Your task to perform on an android device: Go to eBay Image 0: 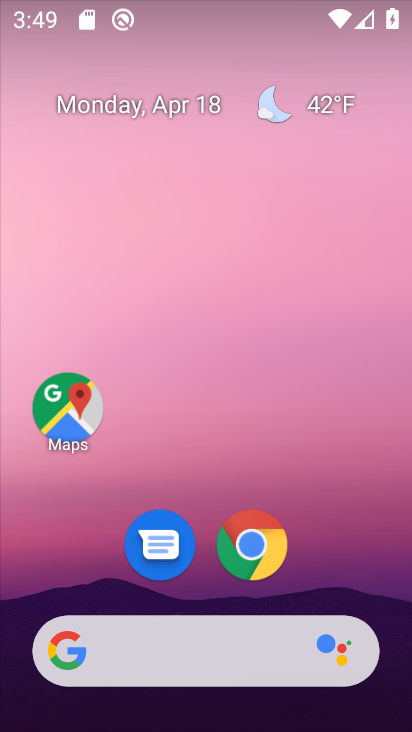
Step 0: drag from (314, 567) to (282, 74)
Your task to perform on an android device: Go to eBay Image 1: 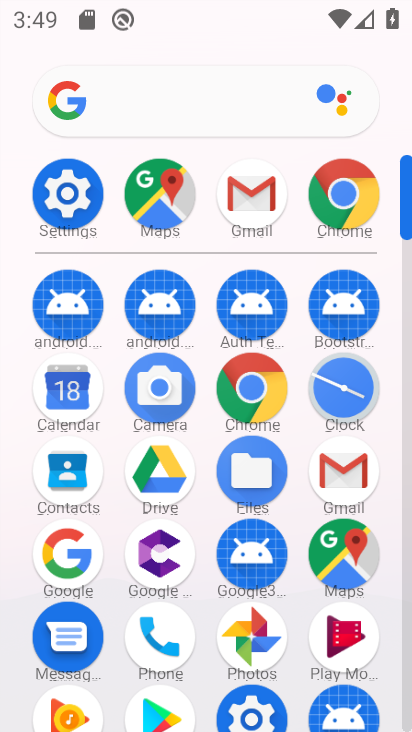
Step 1: click (243, 404)
Your task to perform on an android device: Go to eBay Image 2: 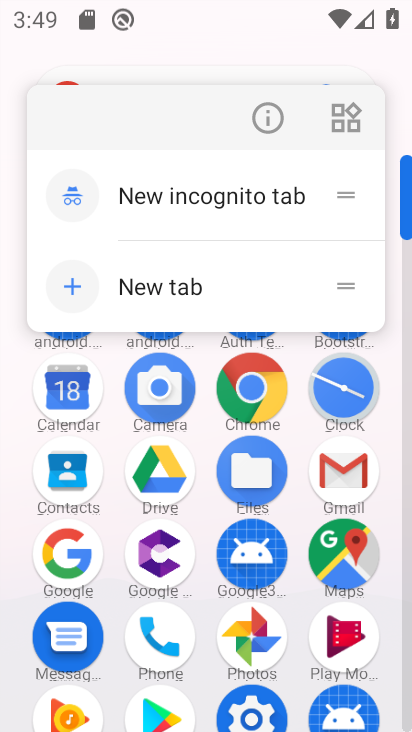
Step 2: click (243, 404)
Your task to perform on an android device: Go to eBay Image 3: 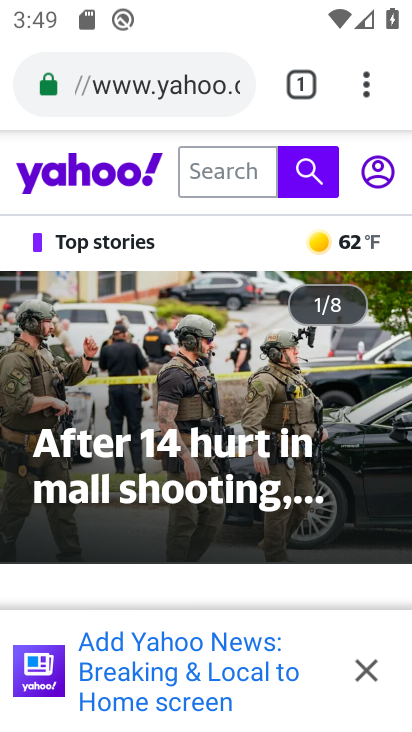
Step 3: press back button
Your task to perform on an android device: Go to eBay Image 4: 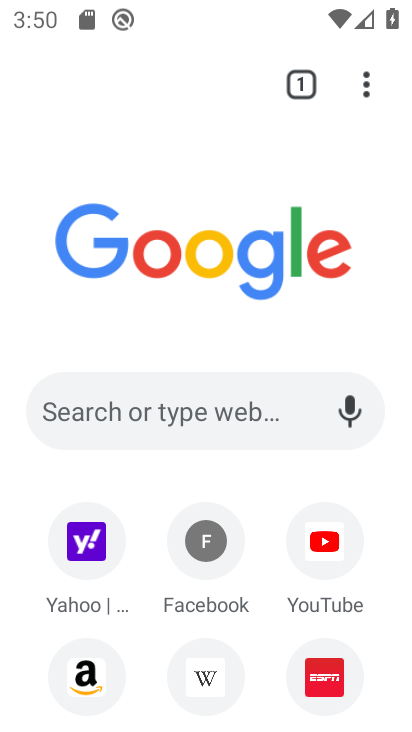
Step 4: drag from (389, 556) to (383, 282)
Your task to perform on an android device: Go to eBay Image 5: 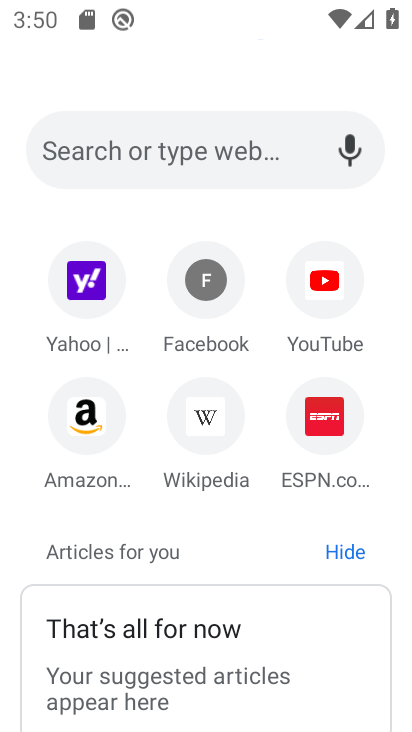
Step 5: click (171, 150)
Your task to perform on an android device: Go to eBay Image 6: 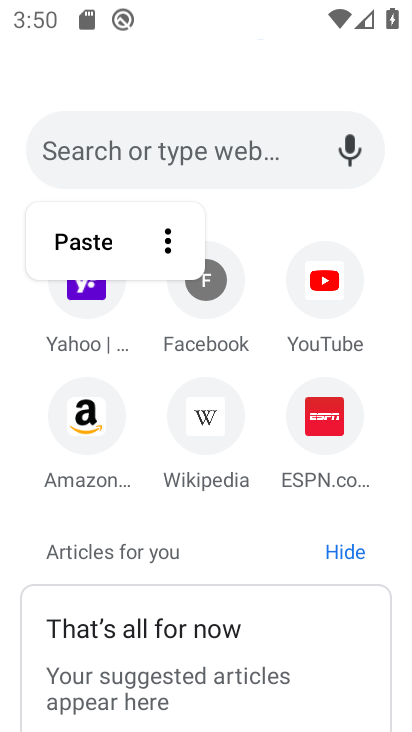
Step 6: type "ebay"
Your task to perform on an android device: Go to eBay Image 7: 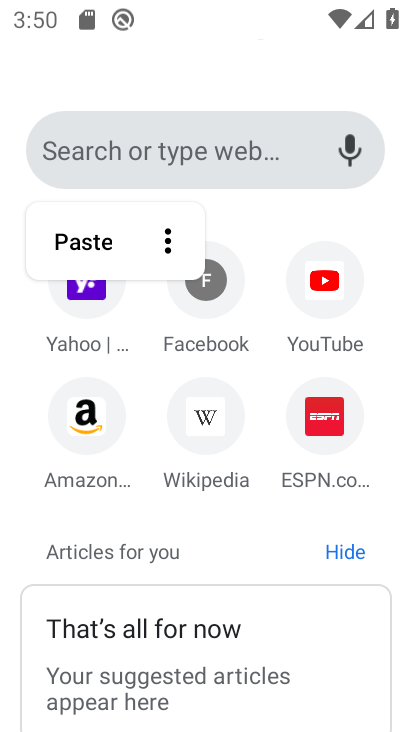
Step 7: click (158, 148)
Your task to perform on an android device: Go to eBay Image 8: 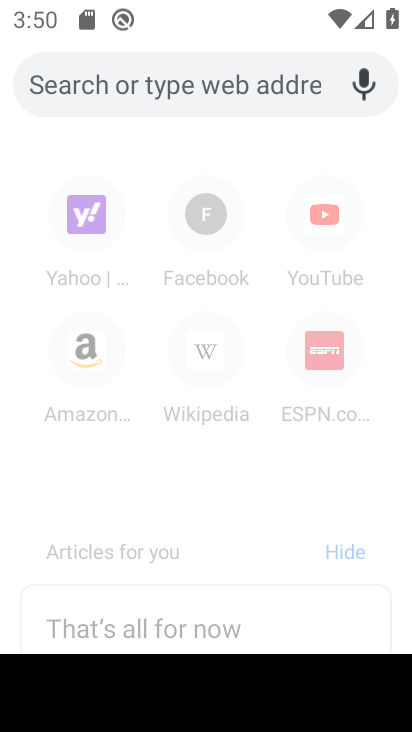
Step 8: type "ebay"
Your task to perform on an android device: Go to eBay Image 9: 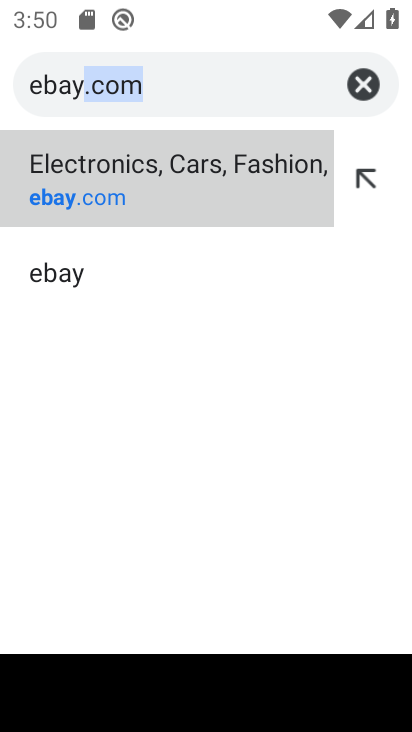
Step 9: click (76, 281)
Your task to perform on an android device: Go to eBay Image 10: 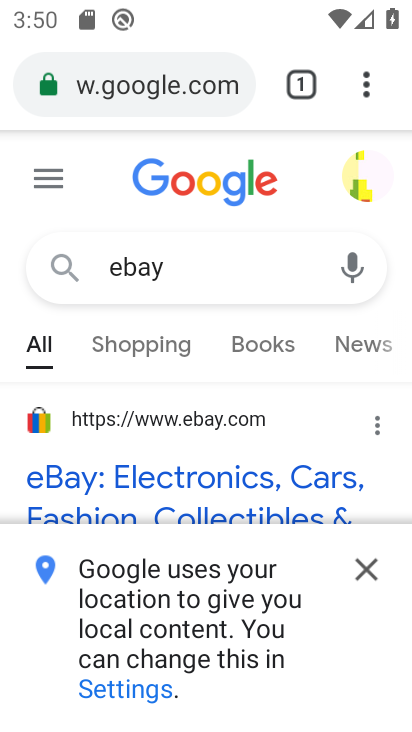
Step 10: click (199, 482)
Your task to perform on an android device: Go to eBay Image 11: 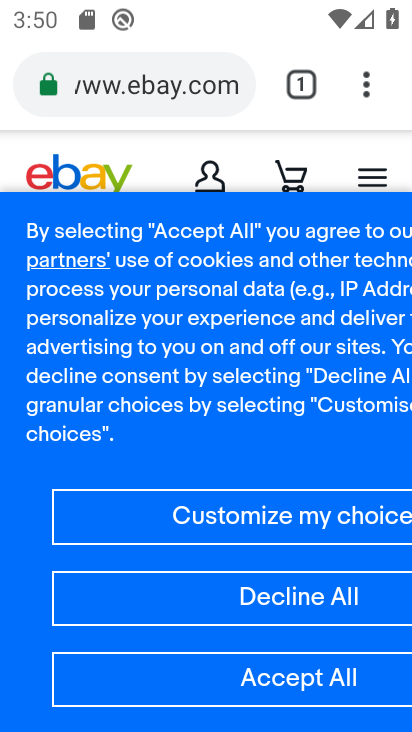
Step 11: task complete